Your task to perform on an android device: Open network settings Image 0: 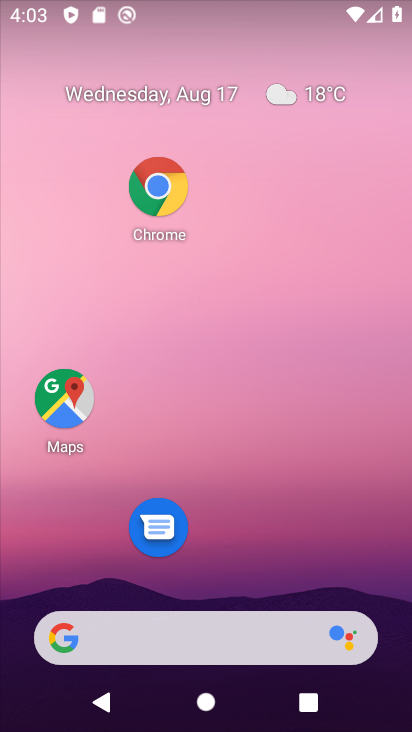
Step 0: drag from (306, 7) to (348, 387)
Your task to perform on an android device: Open network settings Image 1: 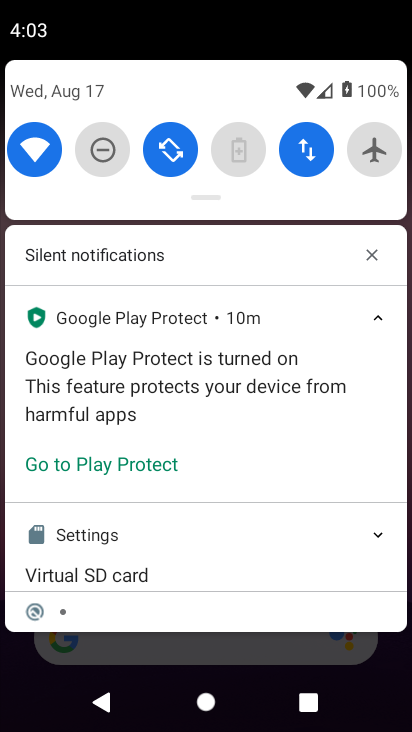
Step 1: click (314, 168)
Your task to perform on an android device: Open network settings Image 2: 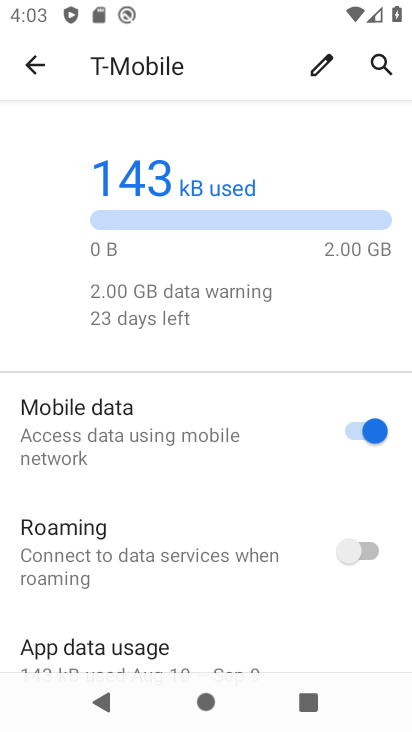
Step 2: task complete